Your task to perform on an android device: Open location settings Image 0: 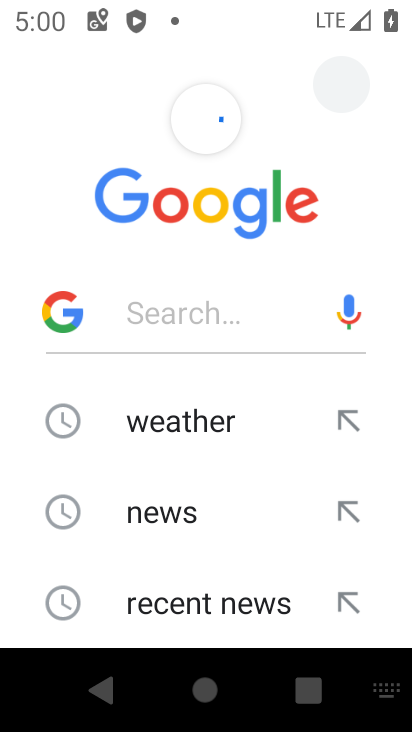
Step 0: press home button
Your task to perform on an android device: Open location settings Image 1: 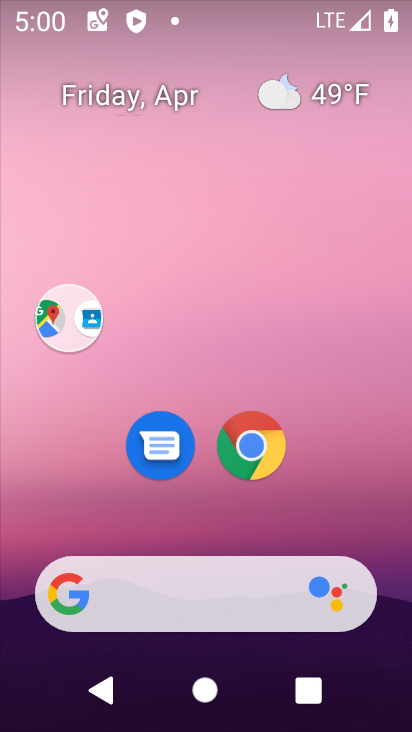
Step 1: drag from (322, 480) to (312, 129)
Your task to perform on an android device: Open location settings Image 2: 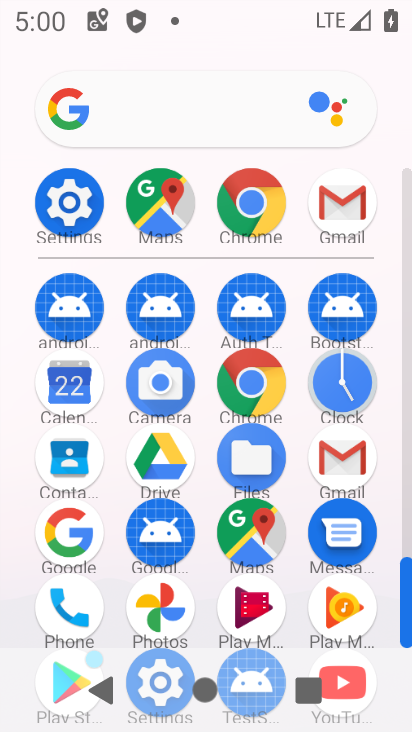
Step 2: drag from (192, 584) to (215, 291)
Your task to perform on an android device: Open location settings Image 3: 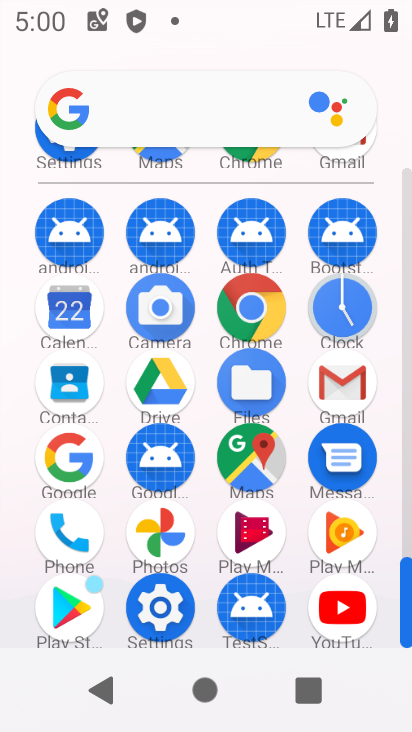
Step 3: click (168, 579)
Your task to perform on an android device: Open location settings Image 4: 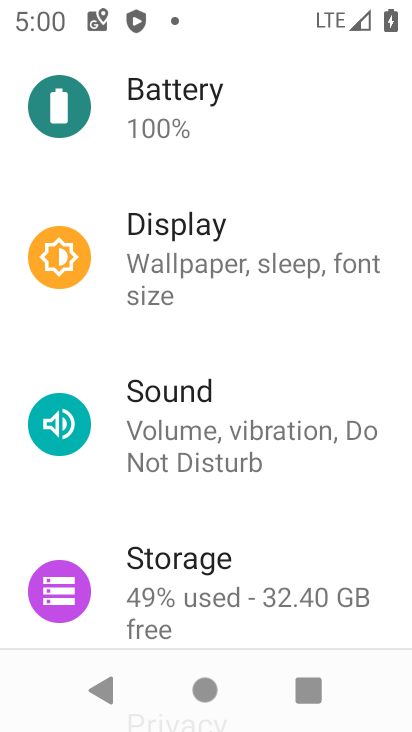
Step 4: drag from (291, 520) to (336, 144)
Your task to perform on an android device: Open location settings Image 5: 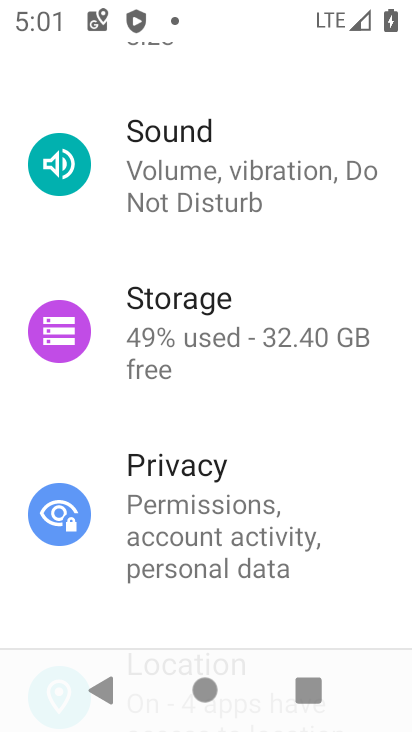
Step 5: drag from (247, 446) to (330, 128)
Your task to perform on an android device: Open location settings Image 6: 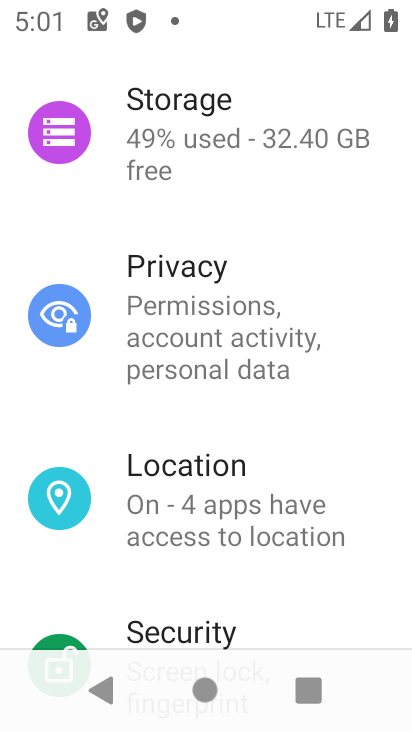
Step 6: click (209, 502)
Your task to perform on an android device: Open location settings Image 7: 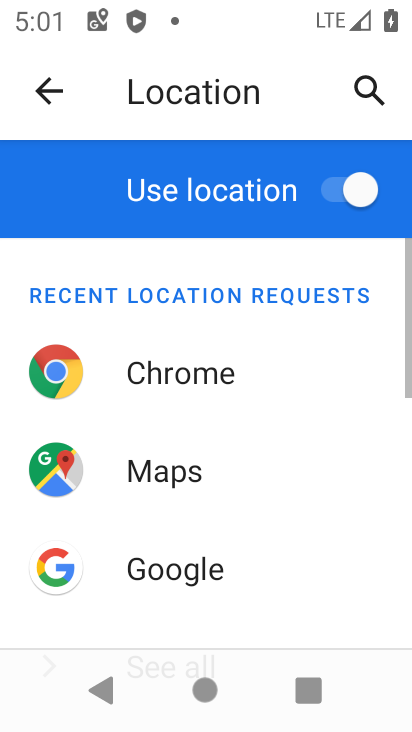
Step 7: task complete